Your task to perform on an android device: Go to ESPN.com Image 0: 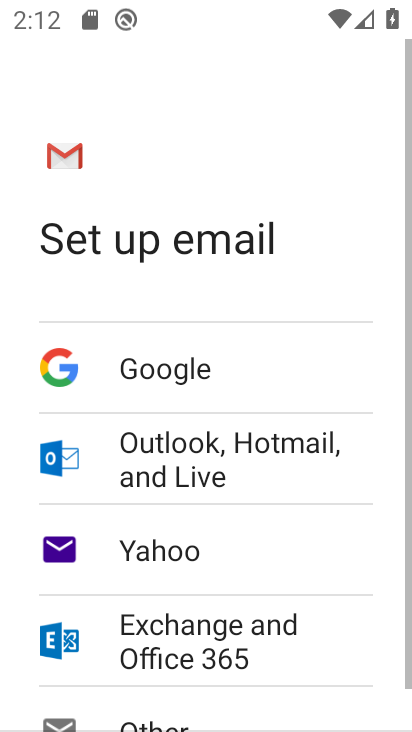
Step 0: press home button
Your task to perform on an android device: Go to ESPN.com Image 1: 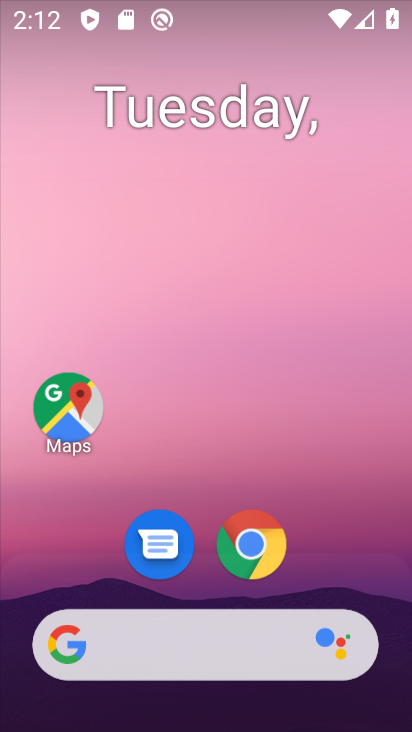
Step 1: click (267, 559)
Your task to perform on an android device: Go to ESPN.com Image 2: 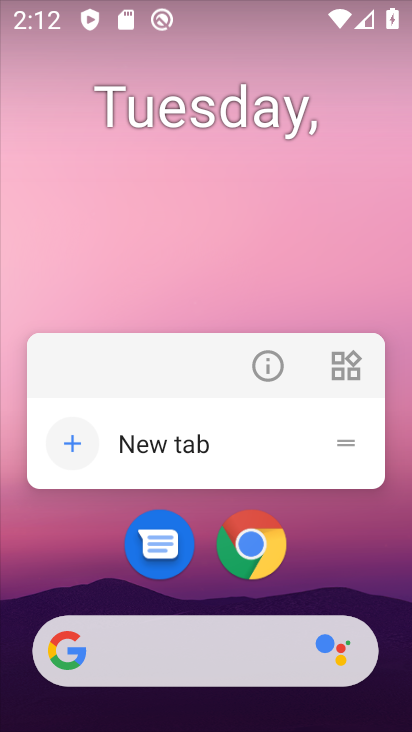
Step 2: click (252, 548)
Your task to perform on an android device: Go to ESPN.com Image 3: 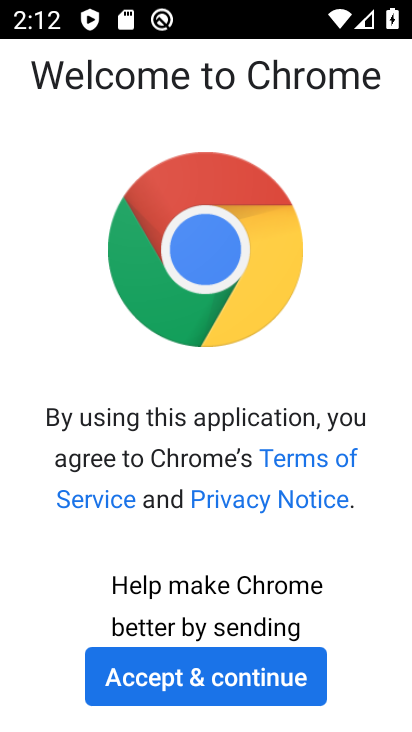
Step 3: click (286, 678)
Your task to perform on an android device: Go to ESPN.com Image 4: 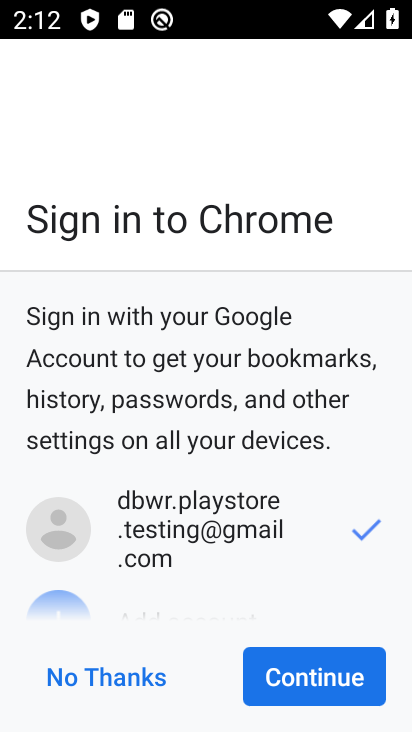
Step 4: click (286, 678)
Your task to perform on an android device: Go to ESPN.com Image 5: 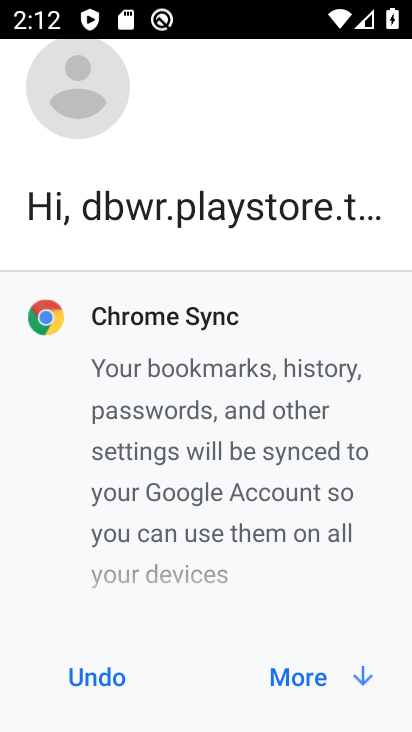
Step 5: click (296, 677)
Your task to perform on an android device: Go to ESPN.com Image 6: 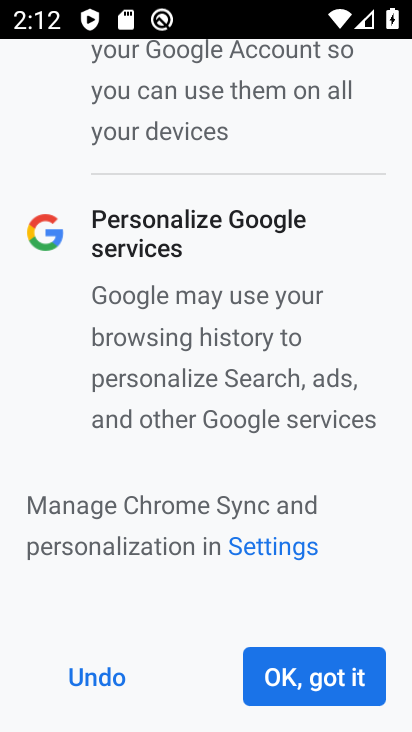
Step 6: click (296, 677)
Your task to perform on an android device: Go to ESPN.com Image 7: 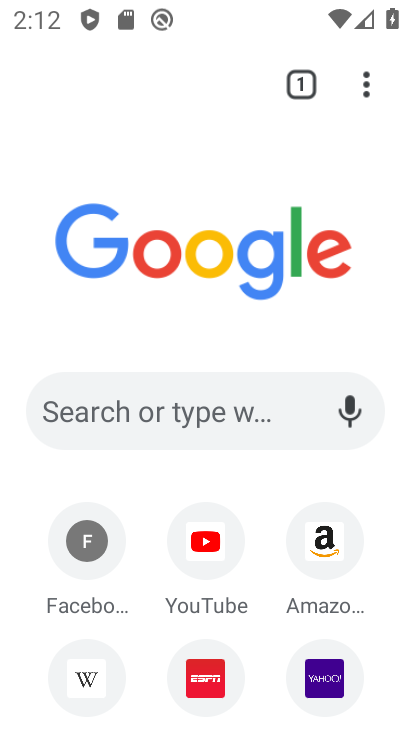
Step 7: click (207, 678)
Your task to perform on an android device: Go to ESPN.com Image 8: 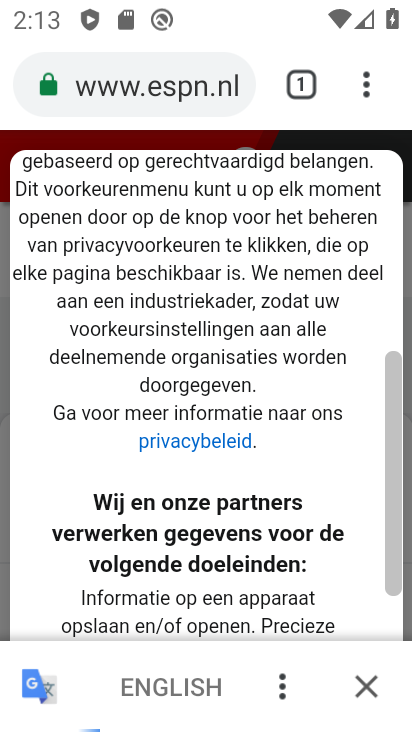
Step 8: drag from (237, 594) to (310, 228)
Your task to perform on an android device: Go to ESPN.com Image 9: 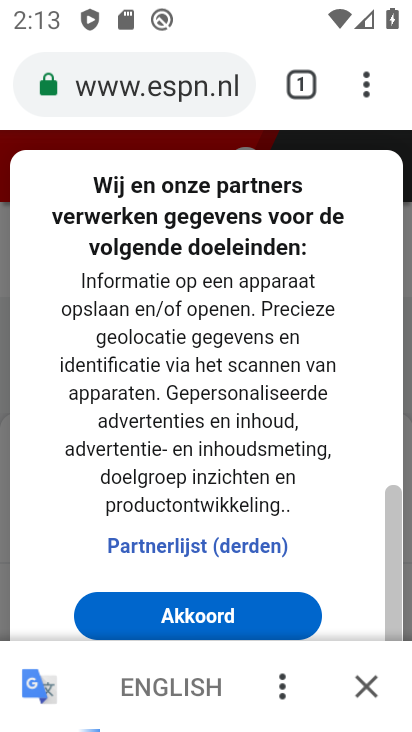
Step 9: click (231, 608)
Your task to perform on an android device: Go to ESPN.com Image 10: 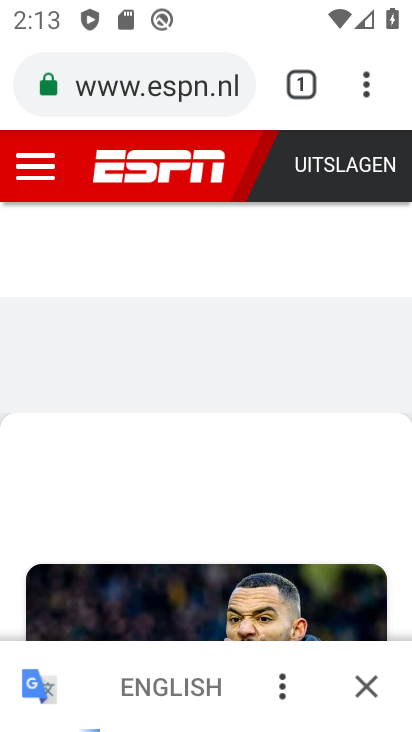
Step 10: task complete